Your task to perform on an android device: check storage Image 0: 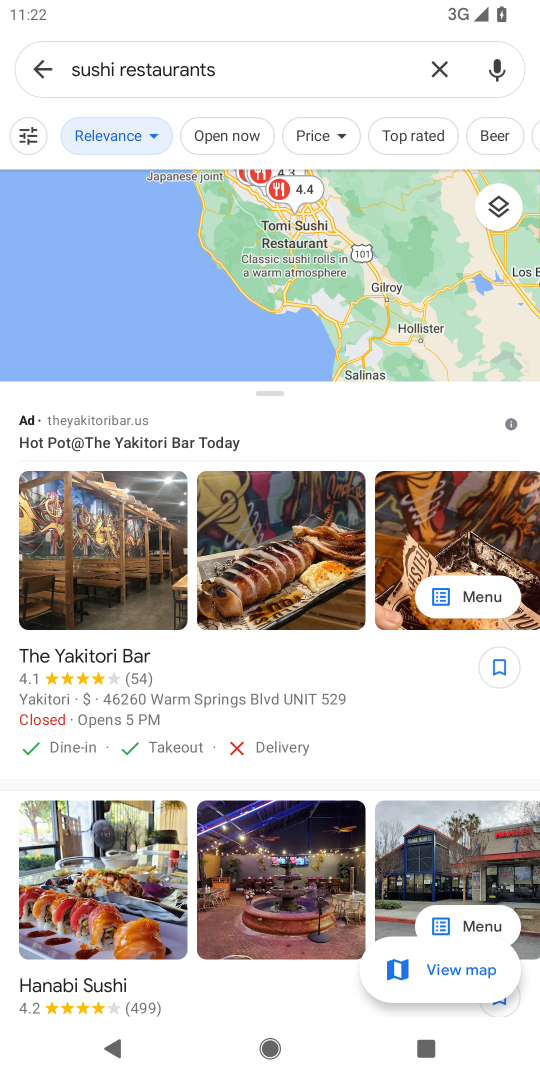
Step 0: press home button
Your task to perform on an android device: check storage Image 1: 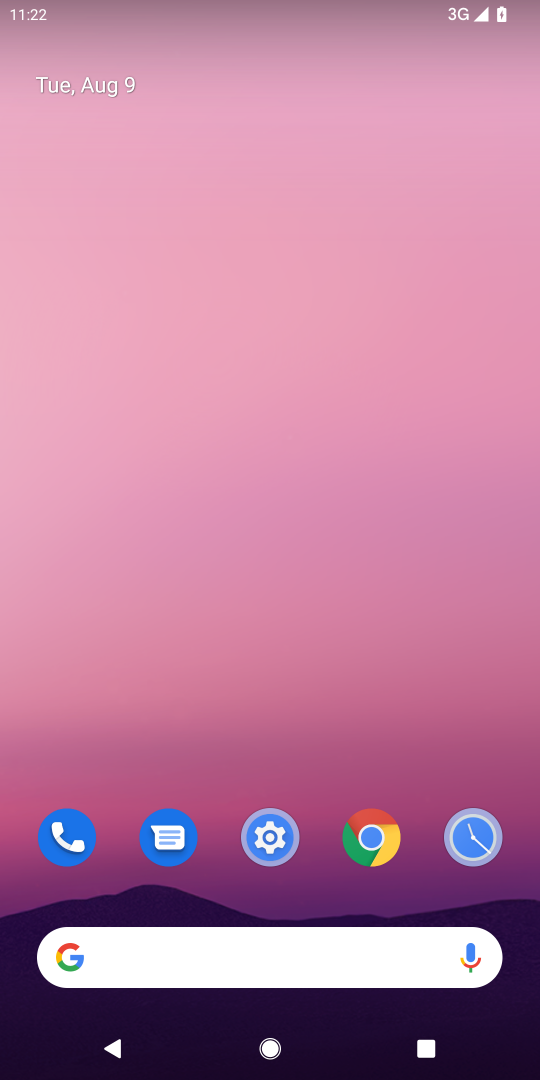
Step 1: drag from (301, 919) to (323, 79)
Your task to perform on an android device: check storage Image 2: 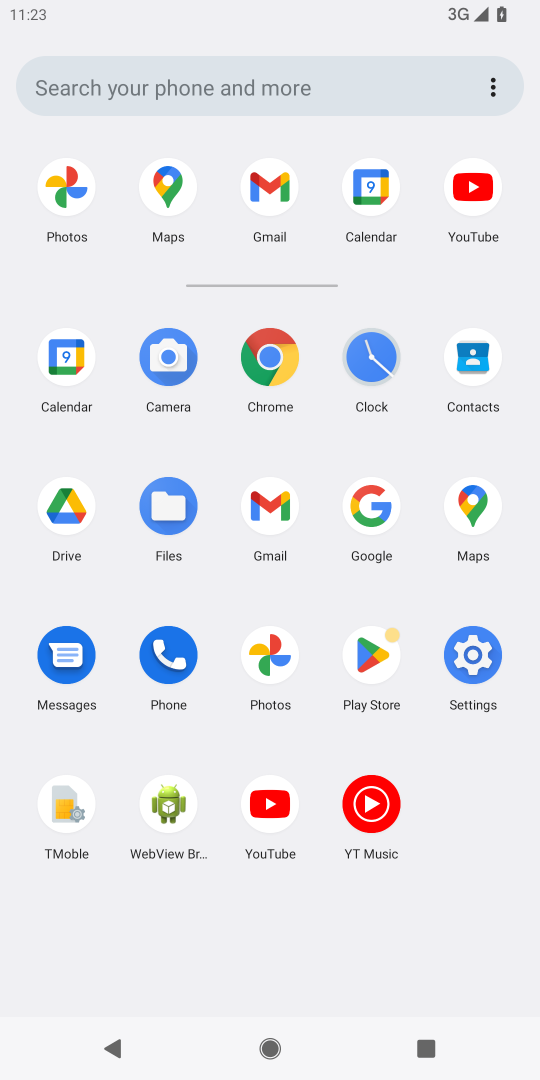
Step 2: click (469, 652)
Your task to perform on an android device: check storage Image 3: 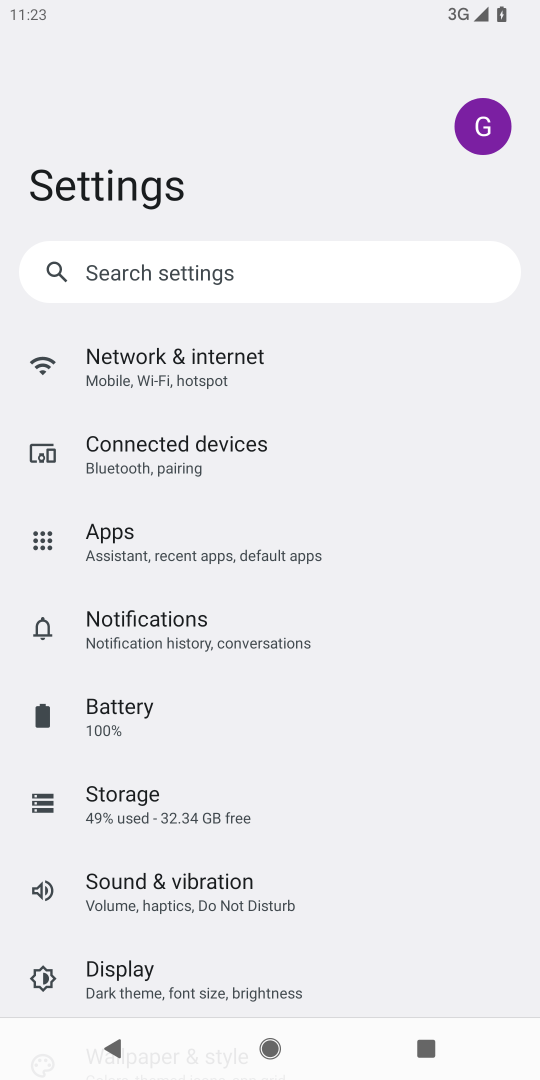
Step 3: click (114, 807)
Your task to perform on an android device: check storage Image 4: 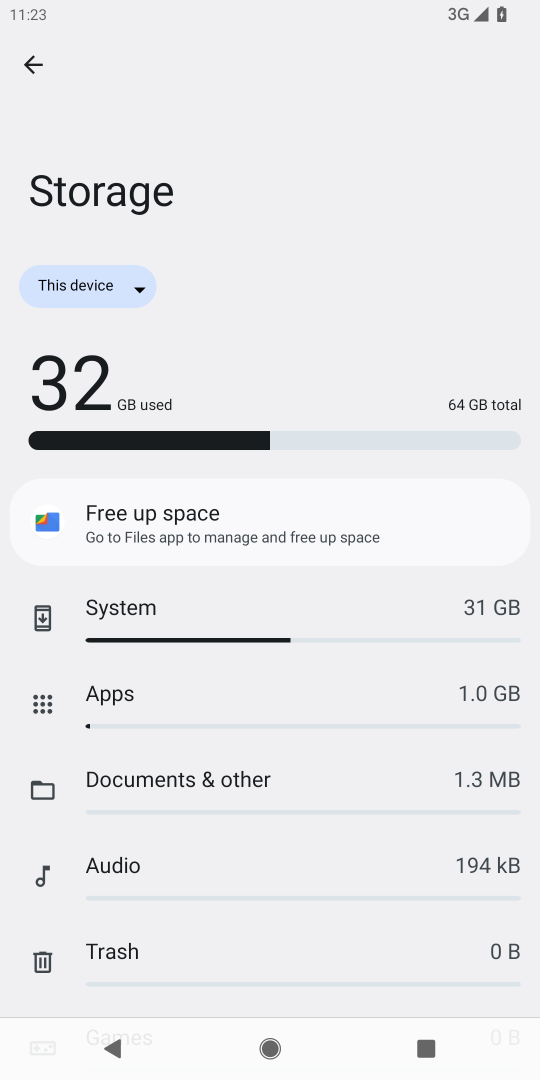
Step 4: task complete